Your task to perform on an android device: What's on my calendar tomorrow? Image 0: 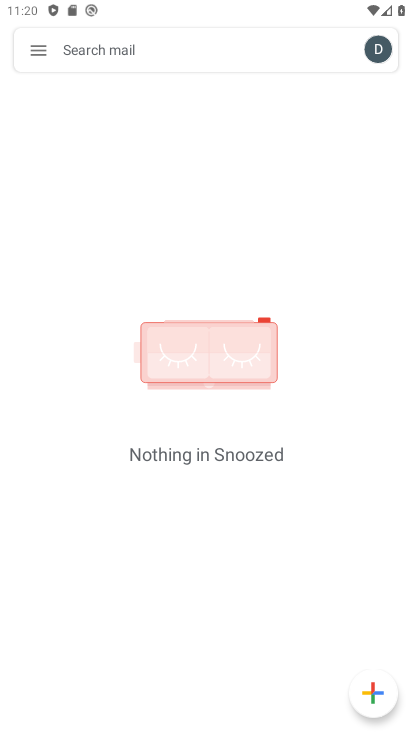
Step 0: press home button
Your task to perform on an android device: What's on my calendar tomorrow? Image 1: 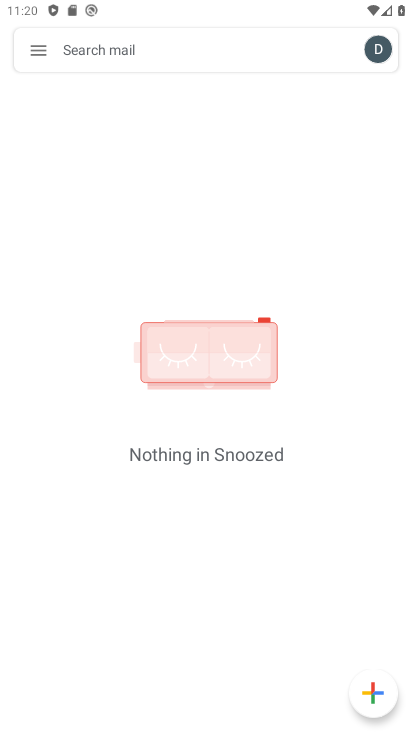
Step 1: press home button
Your task to perform on an android device: What's on my calendar tomorrow? Image 2: 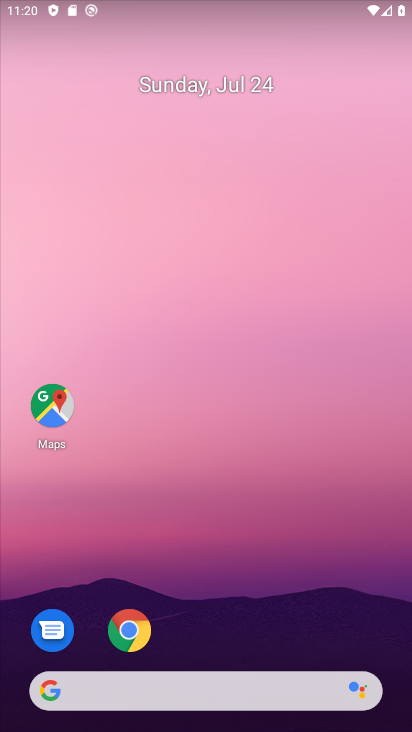
Step 2: drag from (185, 623) to (205, 171)
Your task to perform on an android device: What's on my calendar tomorrow? Image 3: 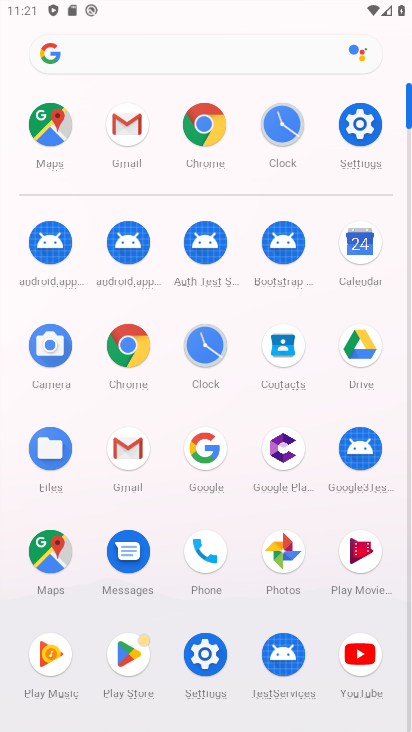
Step 3: click (365, 250)
Your task to perform on an android device: What's on my calendar tomorrow? Image 4: 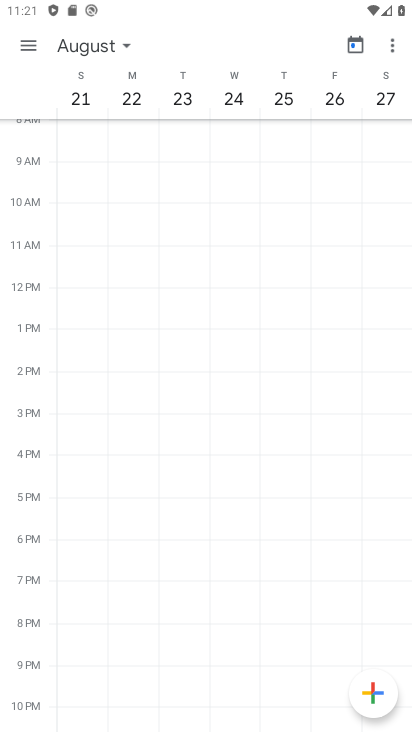
Step 4: click (106, 44)
Your task to perform on an android device: What's on my calendar tomorrow? Image 5: 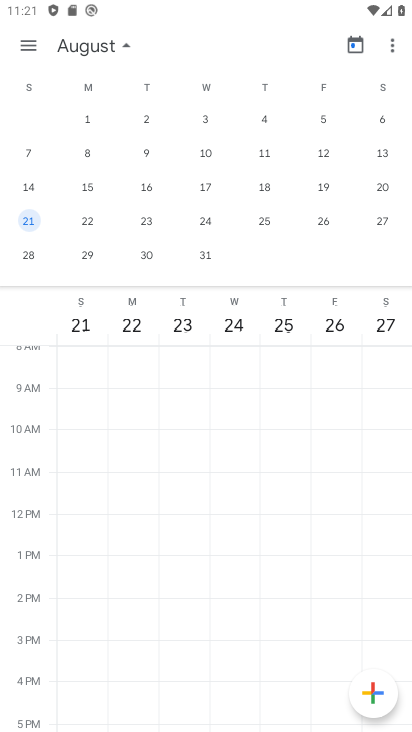
Step 5: drag from (37, 154) to (374, 209)
Your task to perform on an android device: What's on my calendar tomorrow? Image 6: 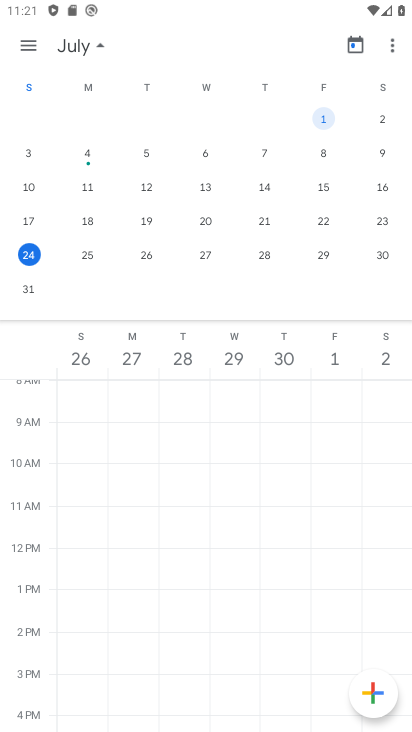
Step 6: click (148, 256)
Your task to perform on an android device: What's on my calendar tomorrow? Image 7: 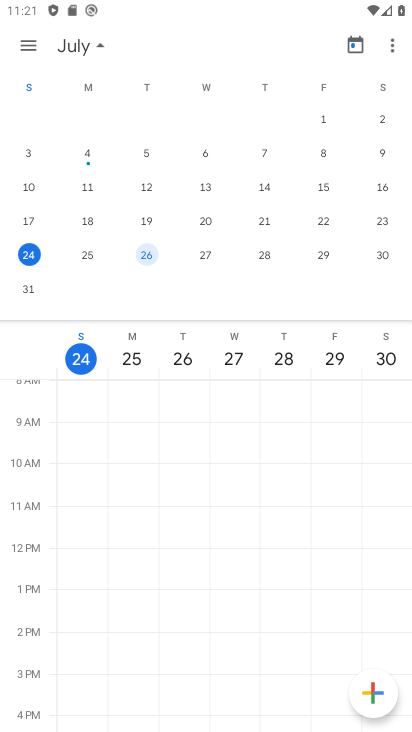
Step 7: click (87, 259)
Your task to perform on an android device: What's on my calendar tomorrow? Image 8: 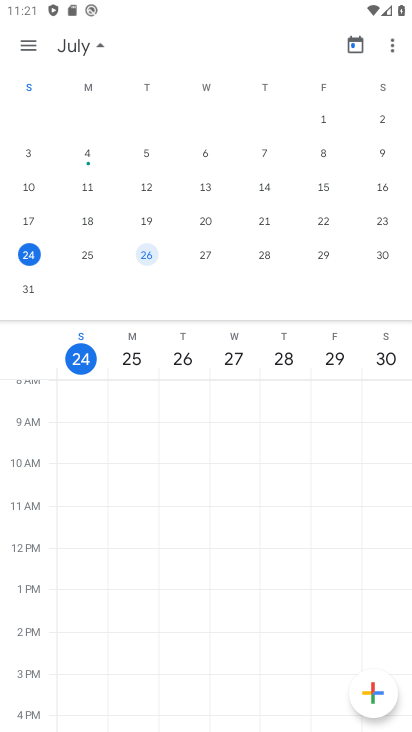
Step 8: click (87, 259)
Your task to perform on an android device: What's on my calendar tomorrow? Image 9: 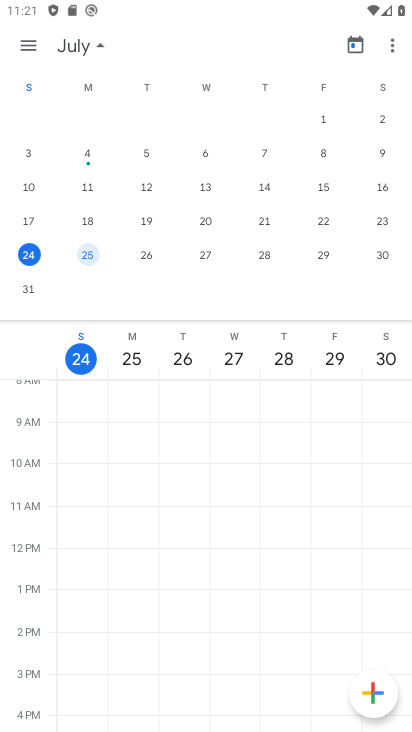
Step 9: task complete